Your task to perform on an android device: toggle priority inbox in the gmail app Image 0: 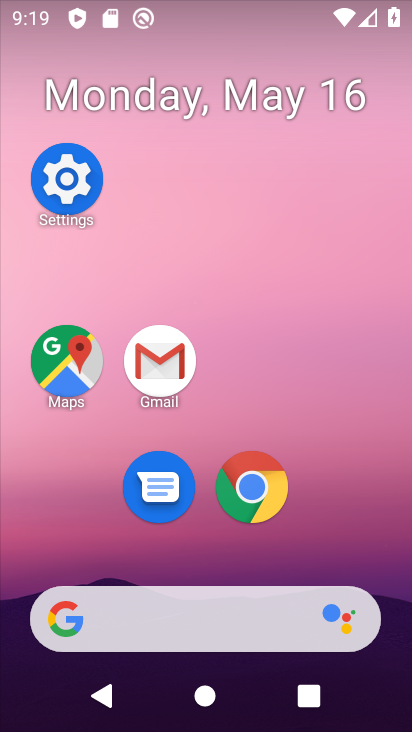
Step 0: click (171, 361)
Your task to perform on an android device: toggle priority inbox in the gmail app Image 1: 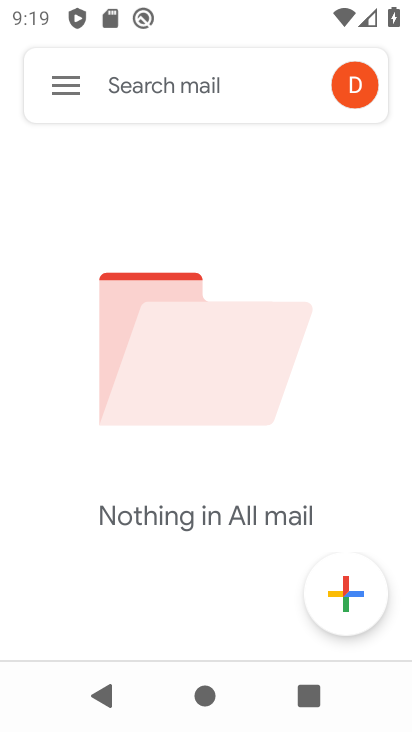
Step 1: click (75, 75)
Your task to perform on an android device: toggle priority inbox in the gmail app Image 2: 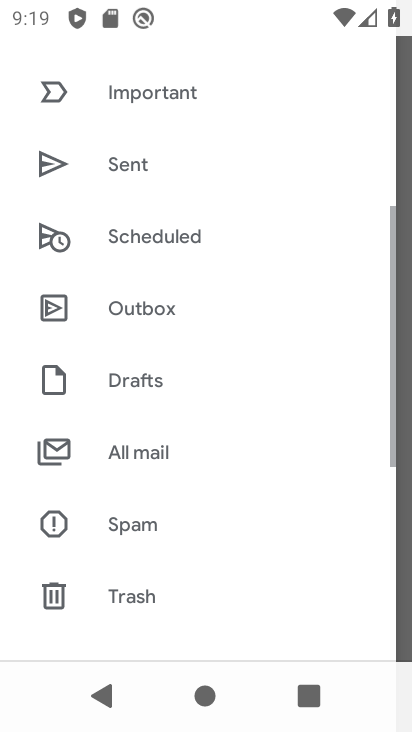
Step 2: drag from (229, 546) to (289, 198)
Your task to perform on an android device: toggle priority inbox in the gmail app Image 3: 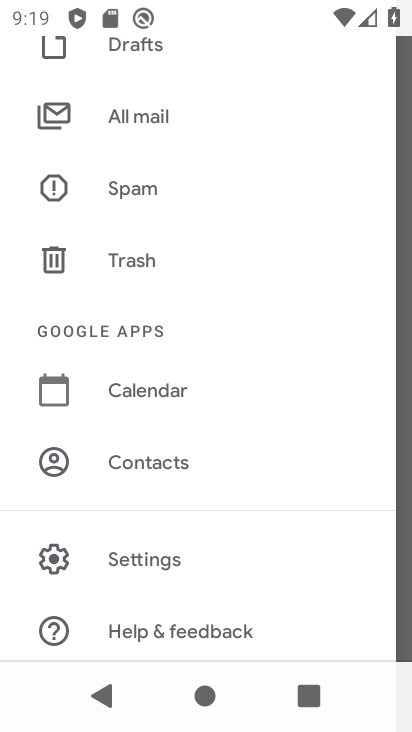
Step 3: click (234, 563)
Your task to perform on an android device: toggle priority inbox in the gmail app Image 4: 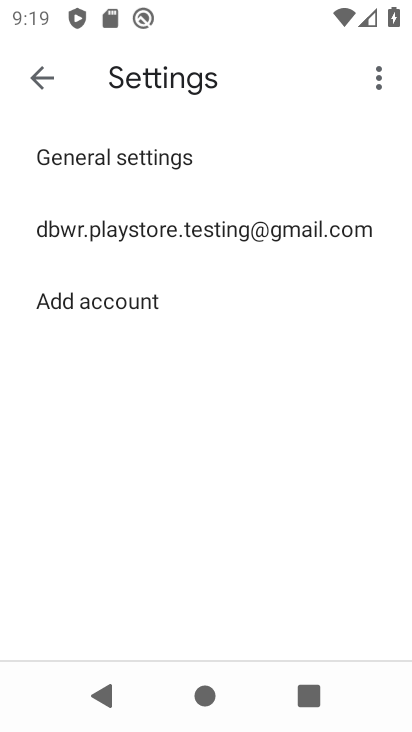
Step 4: click (187, 205)
Your task to perform on an android device: toggle priority inbox in the gmail app Image 5: 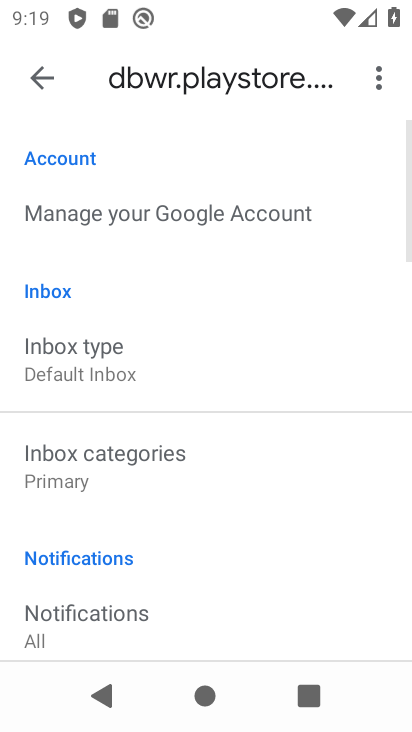
Step 5: click (180, 377)
Your task to perform on an android device: toggle priority inbox in the gmail app Image 6: 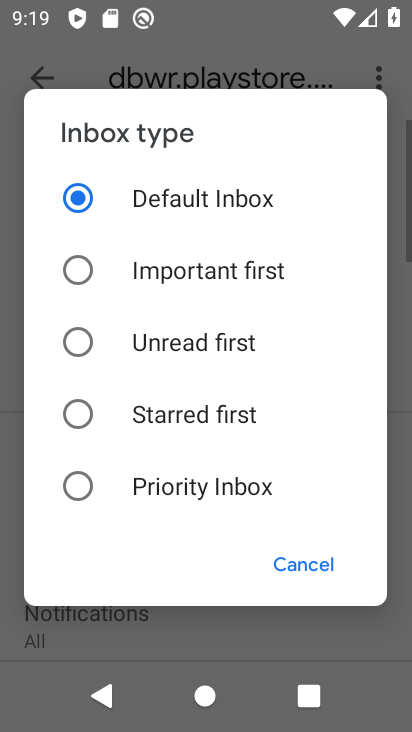
Step 6: click (179, 480)
Your task to perform on an android device: toggle priority inbox in the gmail app Image 7: 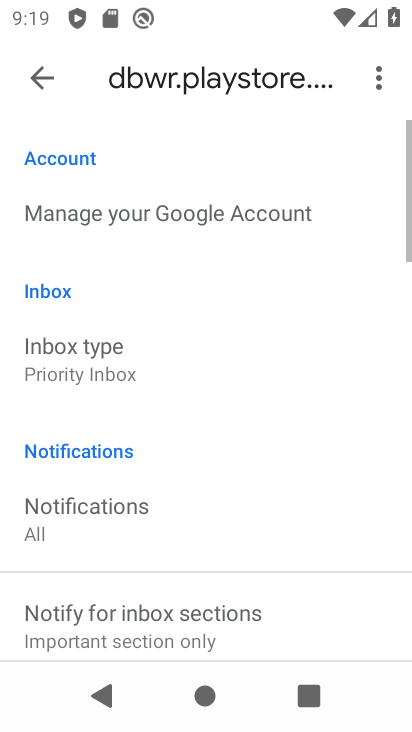
Step 7: task complete